Your task to perform on an android device: Go to Maps Image 0: 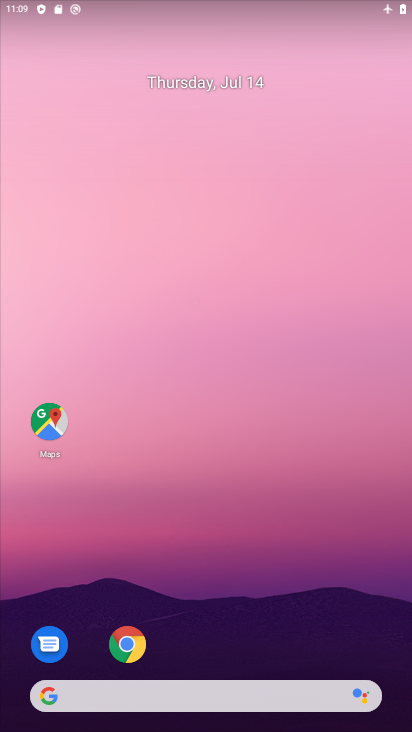
Step 0: drag from (253, 671) to (360, 5)
Your task to perform on an android device: Go to Maps Image 1: 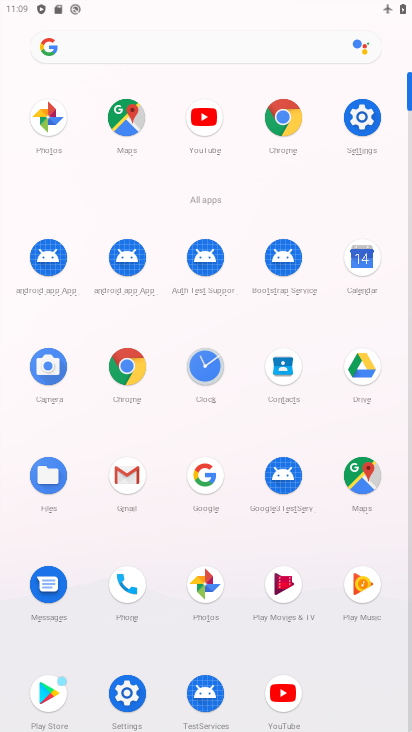
Step 1: click (364, 471)
Your task to perform on an android device: Go to Maps Image 2: 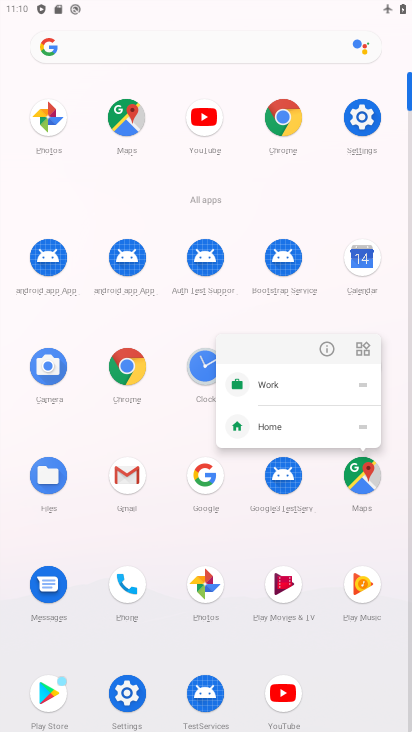
Step 2: click (367, 474)
Your task to perform on an android device: Go to Maps Image 3: 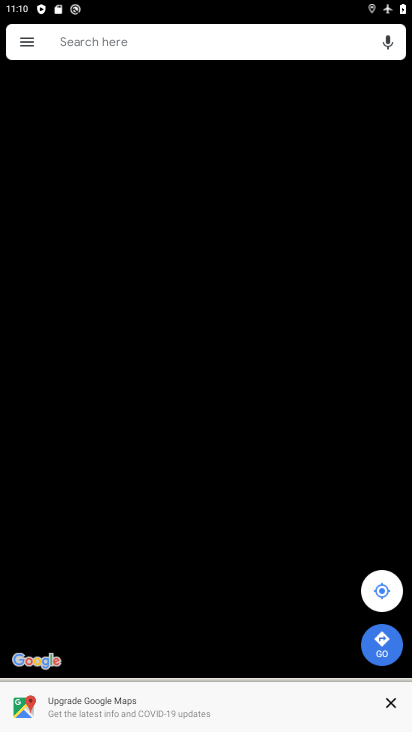
Step 3: click (392, 699)
Your task to perform on an android device: Go to Maps Image 4: 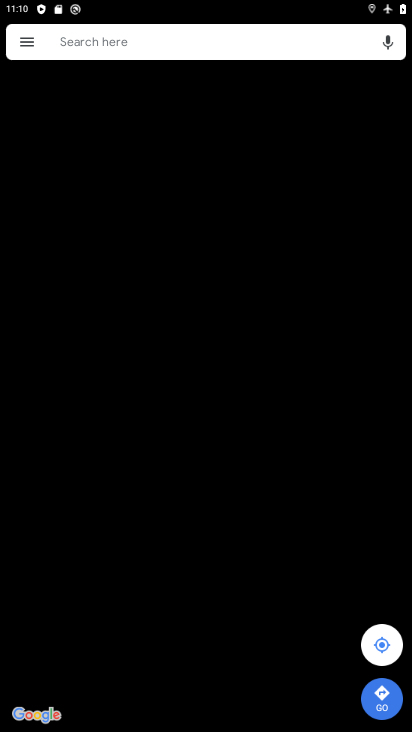
Step 4: task complete